Your task to perform on an android device: turn on javascript in the chrome app Image 0: 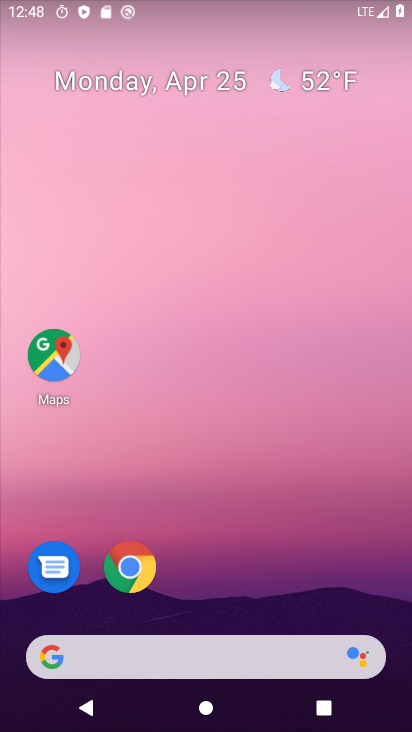
Step 0: click (138, 560)
Your task to perform on an android device: turn on javascript in the chrome app Image 1: 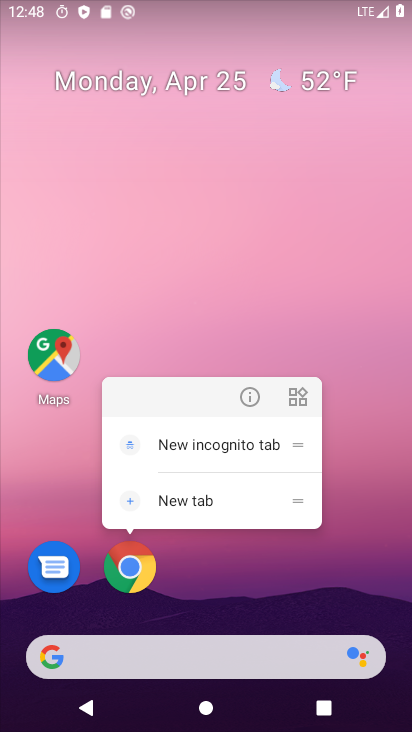
Step 1: click (129, 560)
Your task to perform on an android device: turn on javascript in the chrome app Image 2: 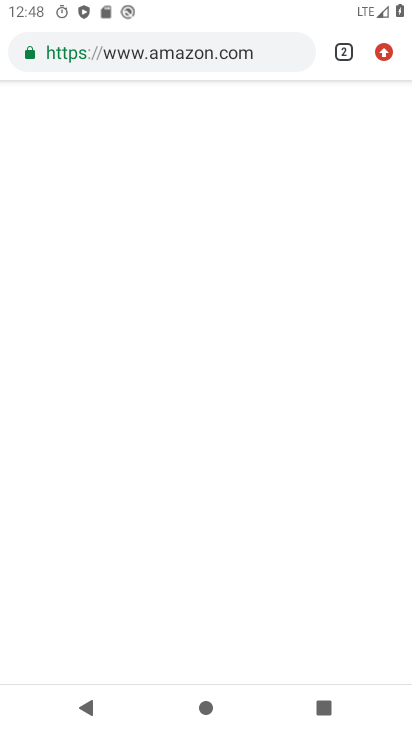
Step 2: click (384, 45)
Your task to perform on an android device: turn on javascript in the chrome app Image 3: 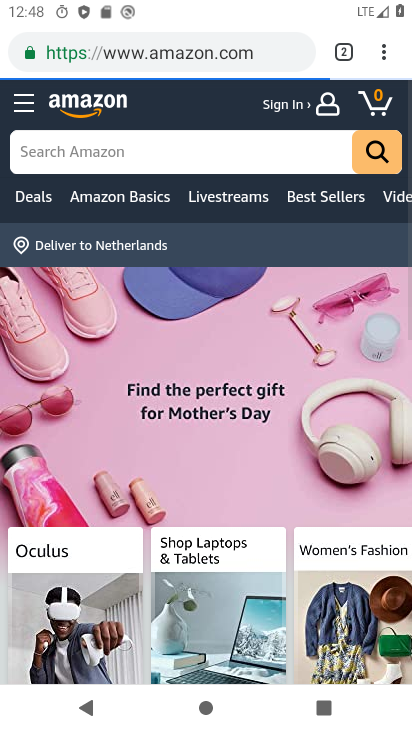
Step 3: click (384, 45)
Your task to perform on an android device: turn on javascript in the chrome app Image 4: 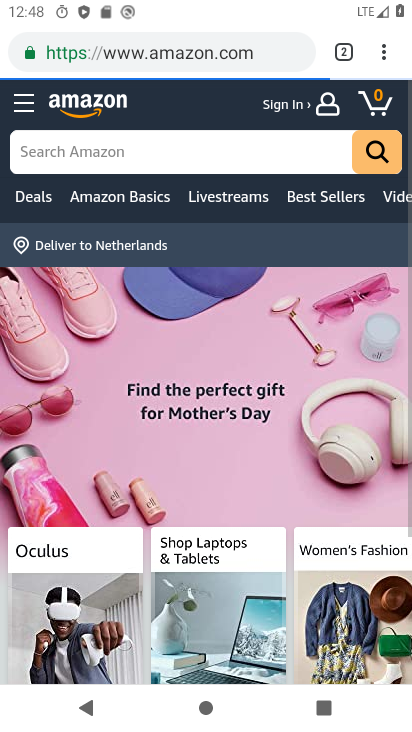
Step 4: click (384, 45)
Your task to perform on an android device: turn on javascript in the chrome app Image 5: 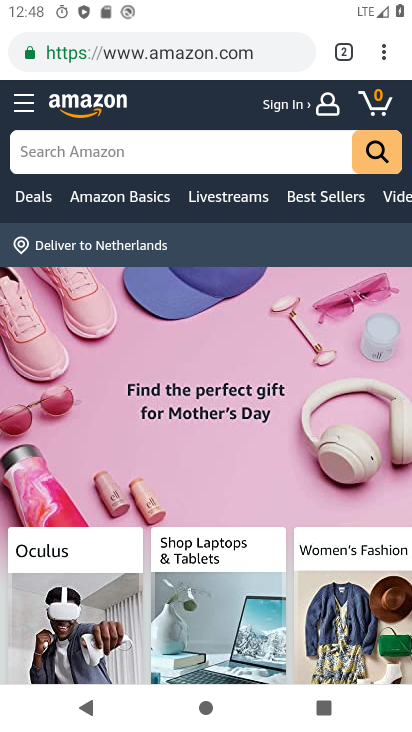
Step 5: click (384, 45)
Your task to perform on an android device: turn on javascript in the chrome app Image 6: 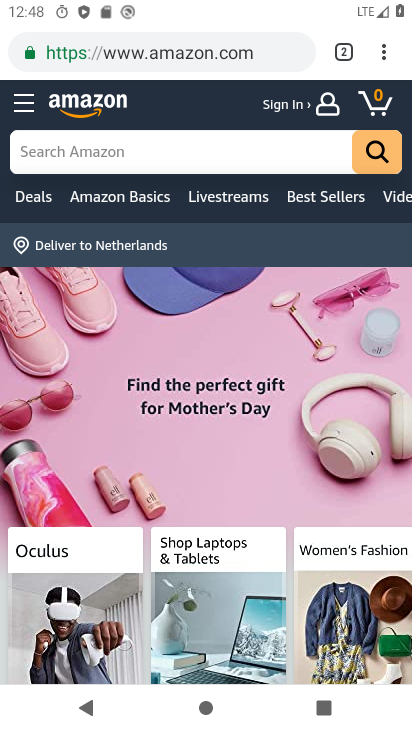
Step 6: drag from (384, 43) to (291, 612)
Your task to perform on an android device: turn on javascript in the chrome app Image 7: 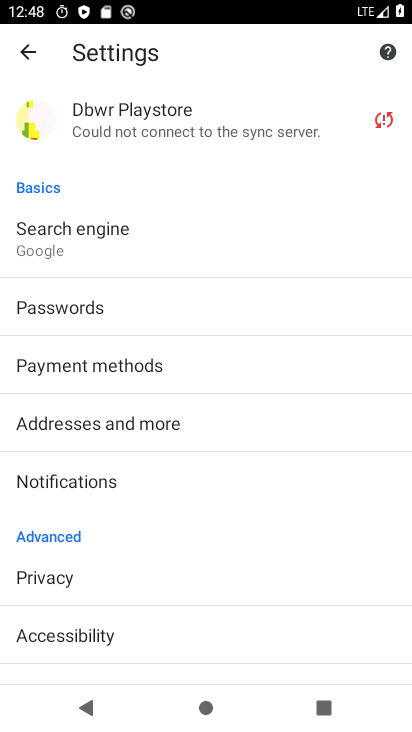
Step 7: drag from (229, 535) to (248, 221)
Your task to perform on an android device: turn on javascript in the chrome app Image 8: 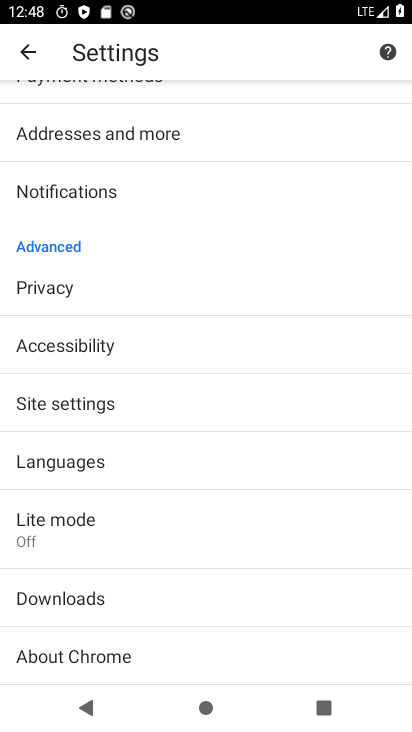
Step 8: click (200, 401)
Your task to perform on an android device: turn on javascript in the chrome app Image 9: 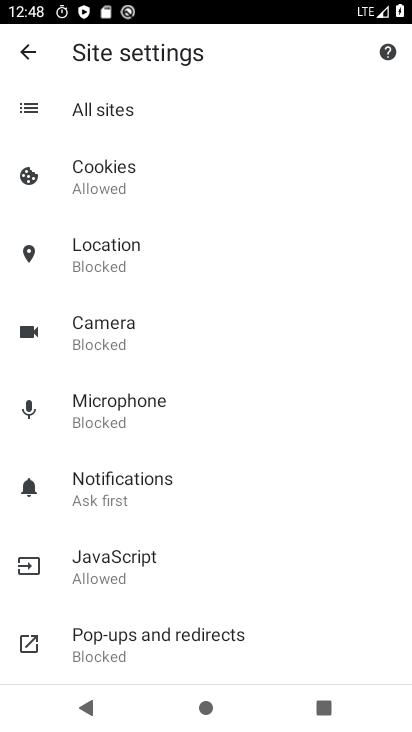
Step 9: click (202, 554)
Your task to perform on an android device: turn on javascript in the chrome app Image 10: 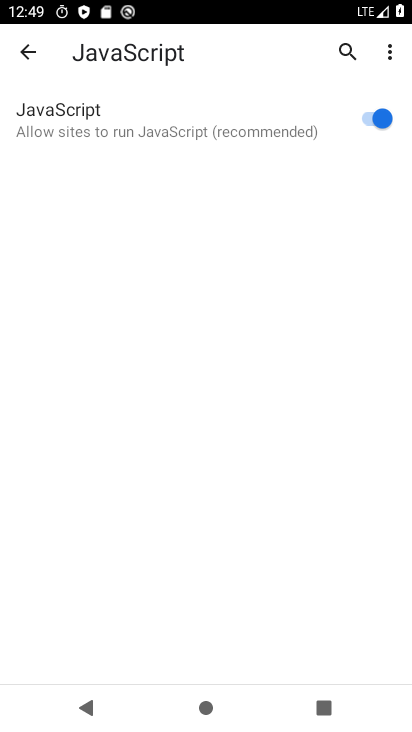
Step 10: task complete